Your task to perform on an android device: turn off location Image 0: 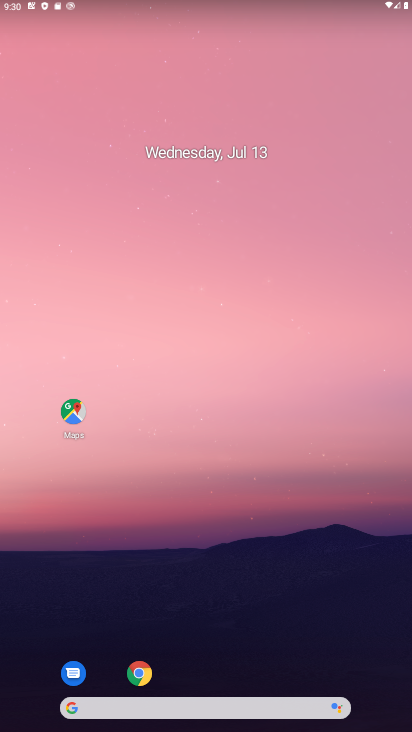
Step 0: drag from (252, 539) to (309, 2)
Your task to perform on an android device: turn off location Image 1: 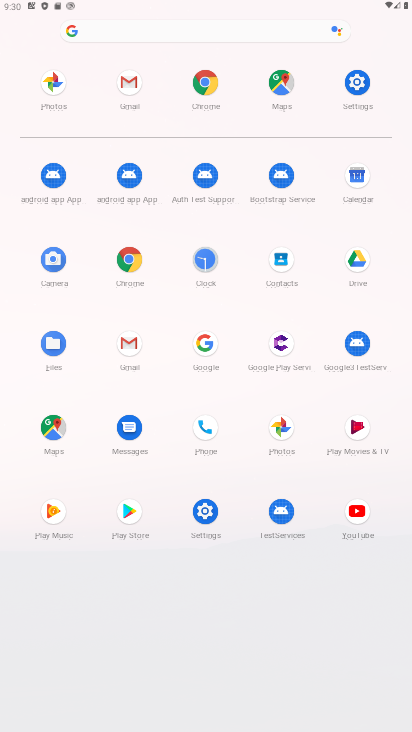
Step 1: click (358, 89)
Your task to perform on an android device: turn off location Image 2: 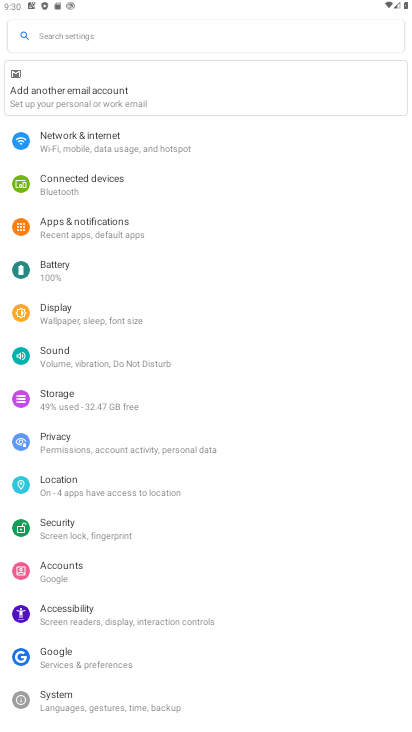
Step 2: click (96, 481)
Your task to perform on an android device: turn off location Image 3: 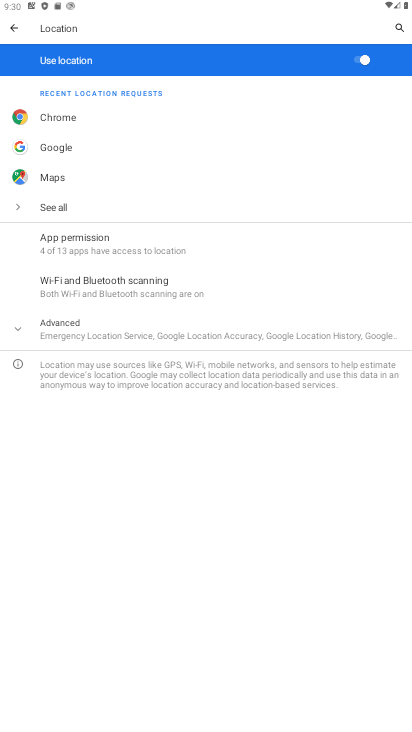
Step 3: click (364, 66)
Your task to perform on an android device: turn off location Image 4: 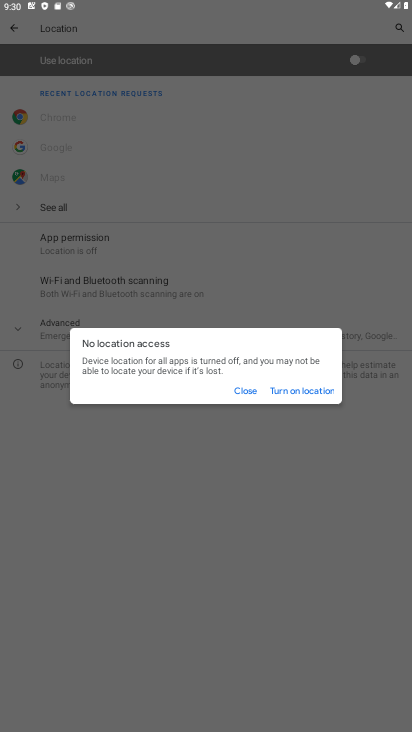
Step 4: task complete